Your task to perform on an android device: Open the stopwatch Image 0: 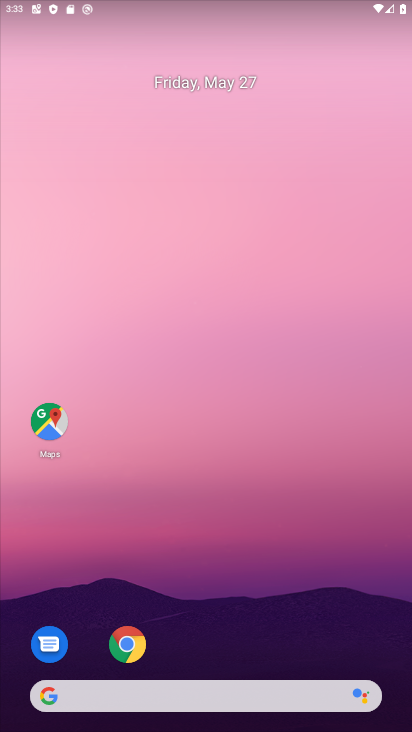
Step 0: click (135, 637)
Your task to perform on an android device: Open the stopwatch Image 1: 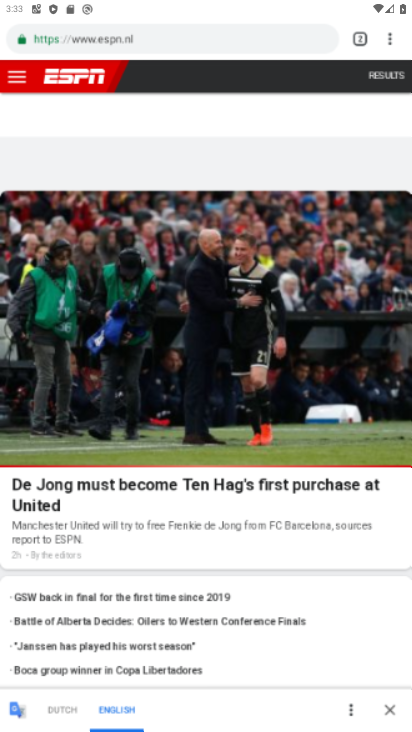
Step 1: press home button
Your task to perform on an android device: Open the stopwatch Image 2: 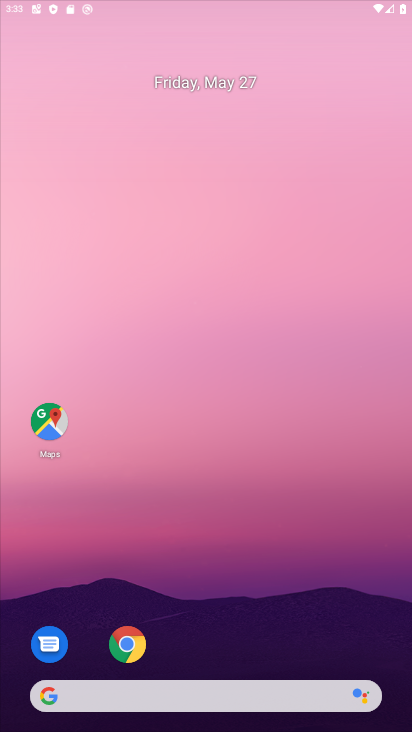
Step 2: drag from (279, 319) to (191, 0)
Your task to perform on an android device: Open the stopwatch Image 3: 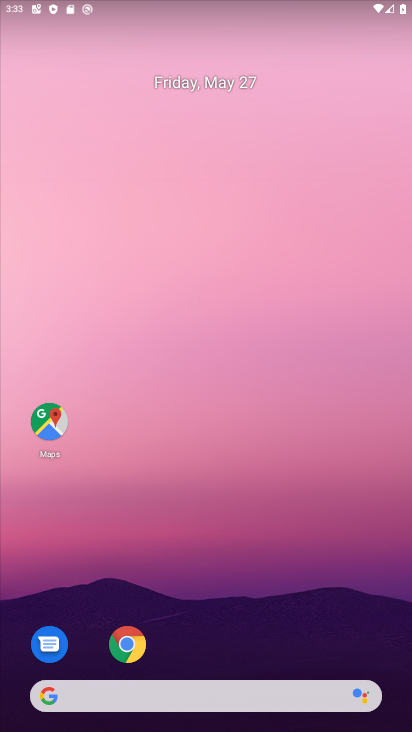
Step 3: drag from (297, 572) to (172, 11)
Your task to perform on an android device: Open the stopwatch Image 4: 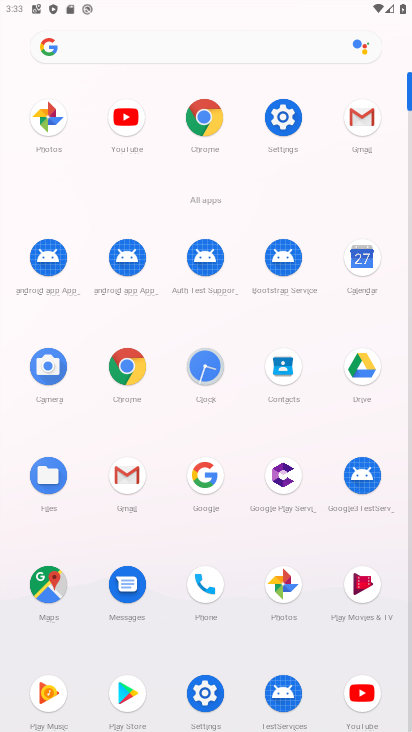
Step 4: click (210, 378)
Your task to perform on an android device: Open the stopwatch Image 5: 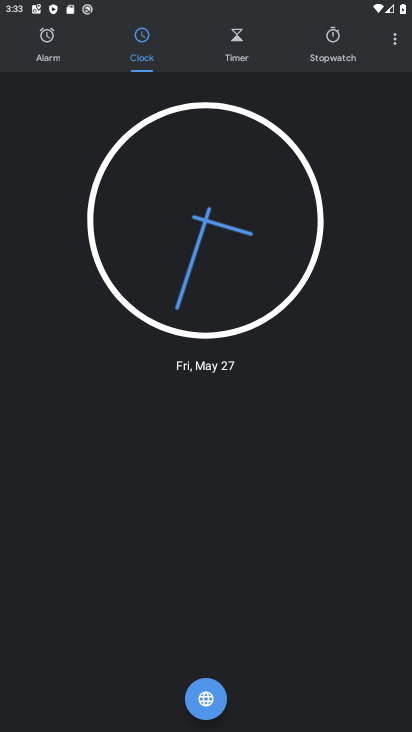
Step 5: click (335, 56)
Your task to perform on an android device: Open the stopwatch Image 6: 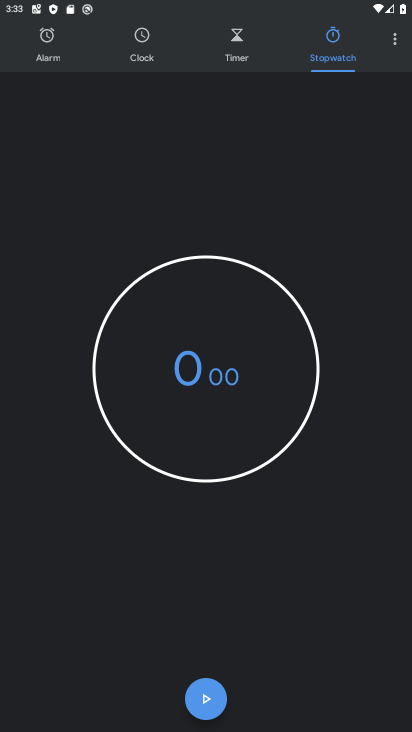
Step 6: task complete